Your task to perform on an android device: toggle translation in the chrome app Image 0: 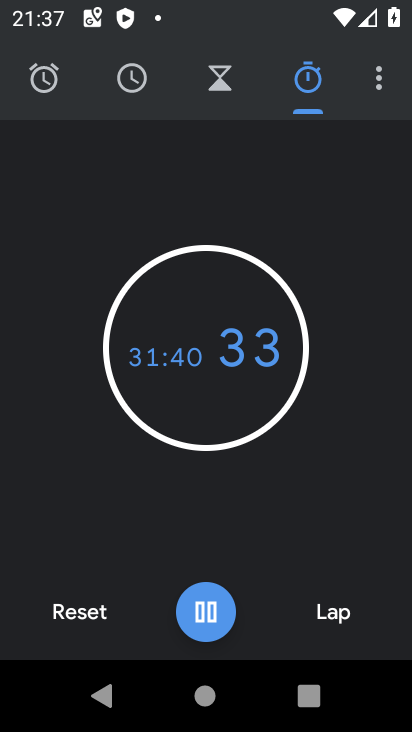
Step 0: press home button
Your task to perform on an android device: toggle translation in the chrome app Image 1: 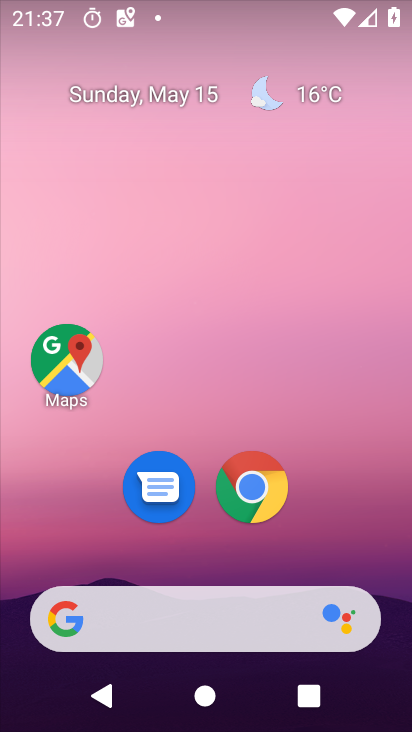
Step 1: click (254, 489)
Your task to perform on an android device: toggle translation in the chrome app Image 2: 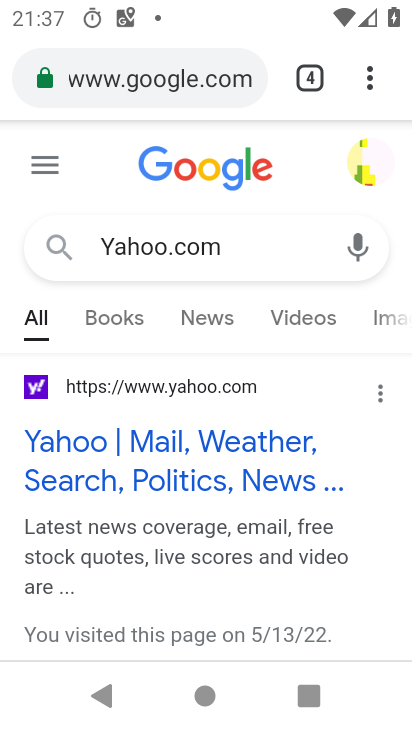
Step 2: click (371, 71)
Your task to perform on an android device: toggle translation in the chrome app Image 3: 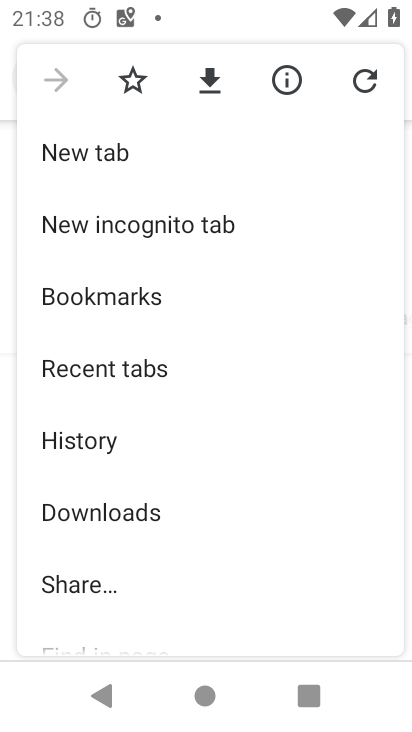
Step 3: drag from (247, 546) to (227, 307)
Your task to perform on an android device: toggle translation in the chrome app Image 4: 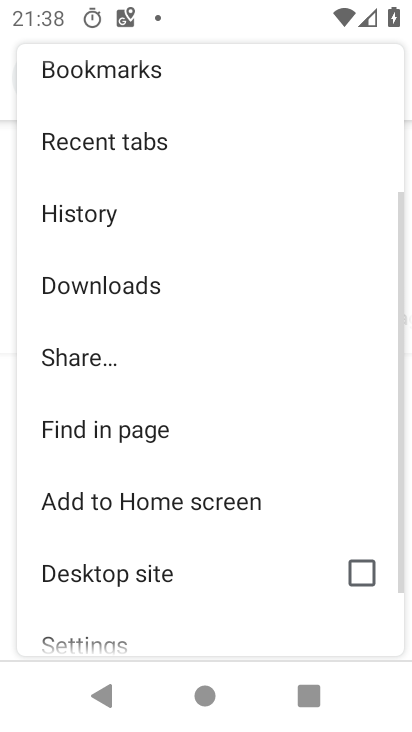
Step 4: drag from (239, 589) to (200, 366)
Your task to perform on an android device: toggle translation in the chrome app Image 5: 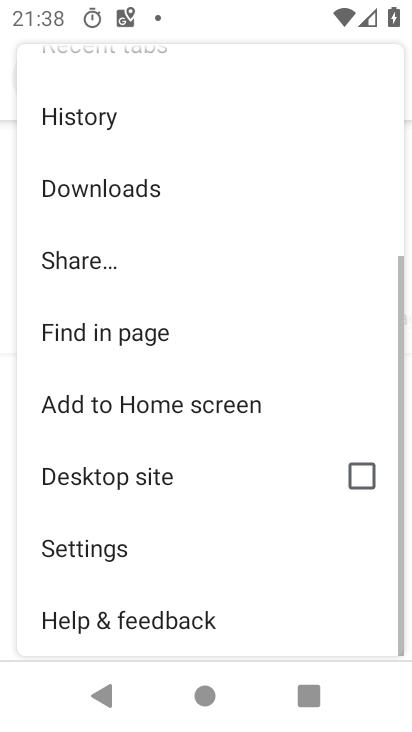
Step 5: click (86, 545)
Your task to perform on an android device: toggle translation in the chrome app Image 6: 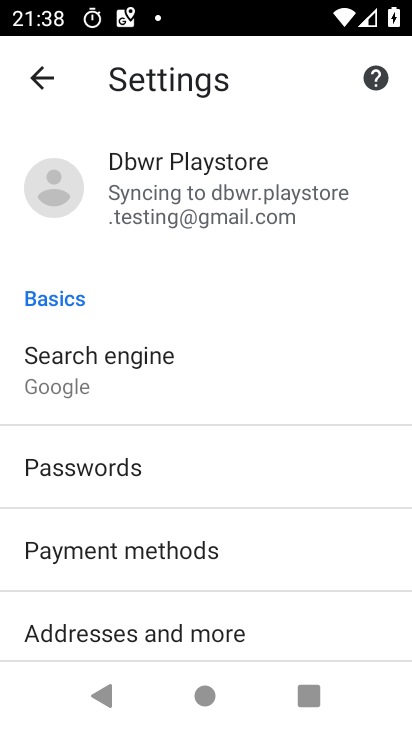
Step 6: drag from (306, 624) to (290, 411)
Your task to perform on an android device: toggle translation in the chrome app Image 7: 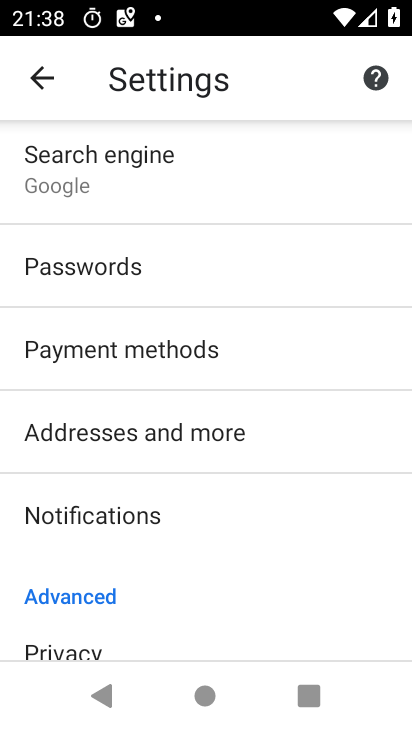
Step 7: drag from (291, 595) to (294, 367)
Your task to perform on an android device: toggle translation in the chrome app Image 8: 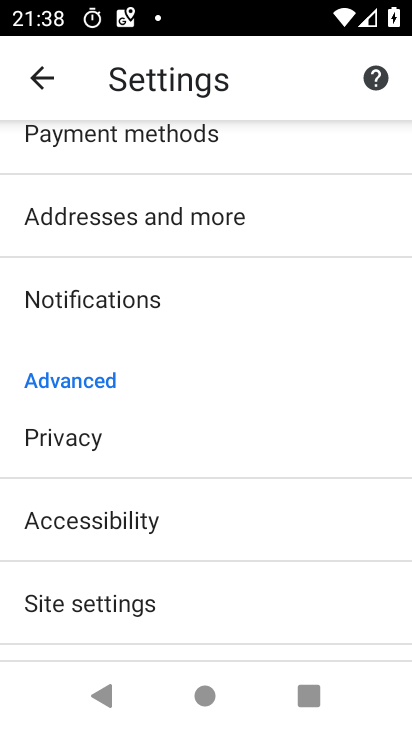
Step 8: drag from (268, 600) to (257, 454)
Your task to perform on an android device: toggle translation in the chrome app Image 9: 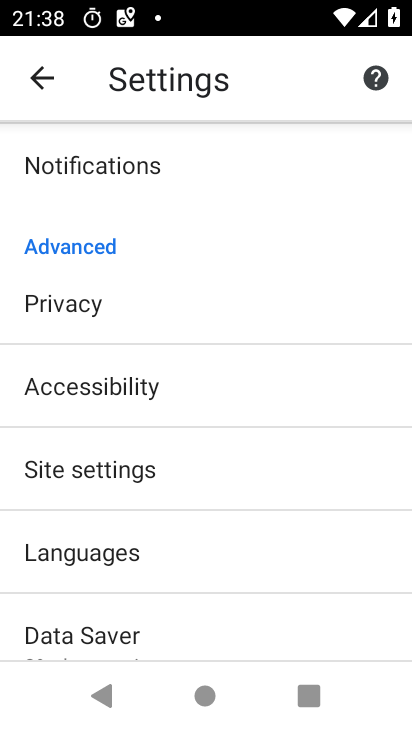
Step 9: click (77, 546)
Your task to perform on an android device: toggle translation in the chrome app Image 10: 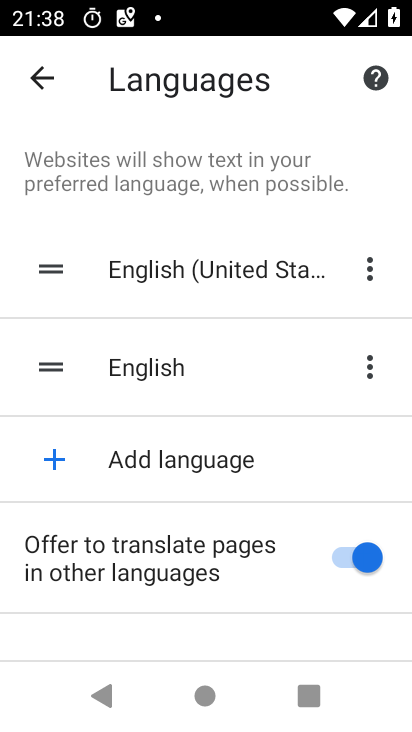
Step 10: click (337, 560)
Your task to perform on an android device: toggle translation in the chrome app Image 11: 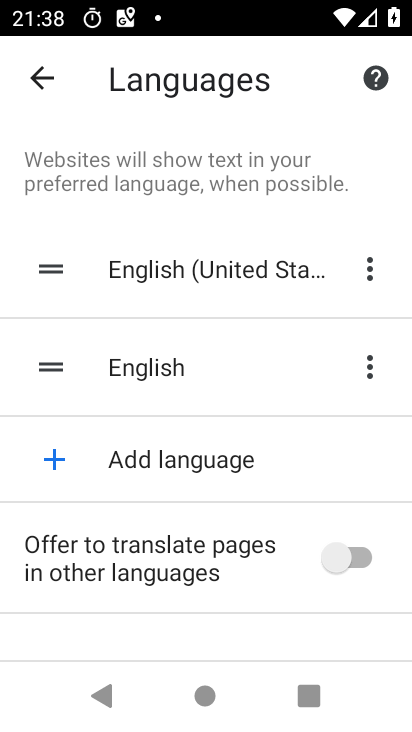
Step 11: task complete